Your task to perform on an android device: Open Google Chrome and open the bookmarks view Image 0: 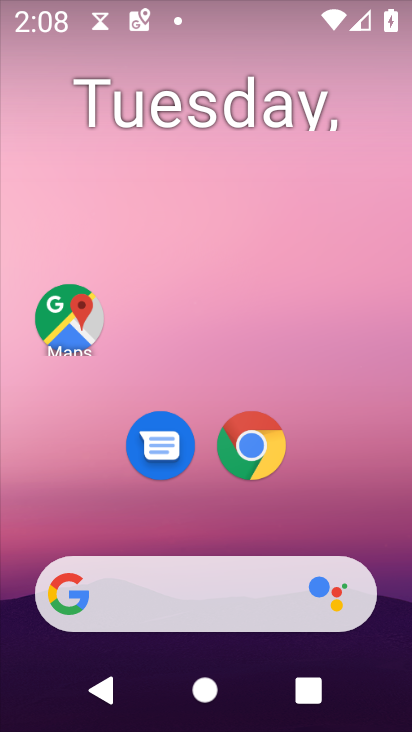
Step 0: drag from (254, 478) to (344, 15)
Your task to perform on an android device: Open Google Chrome and open the bookmarks view Image 1: 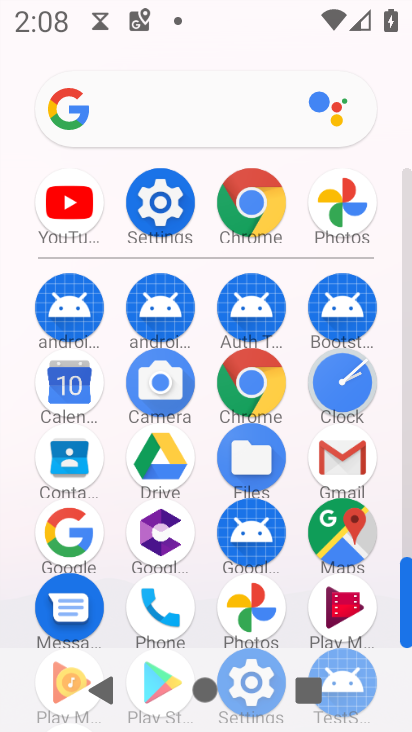
Step 1: click (249, 381)
Your task to perform on an android device: Open Google Chrome and open the bookmarks view Image 2: 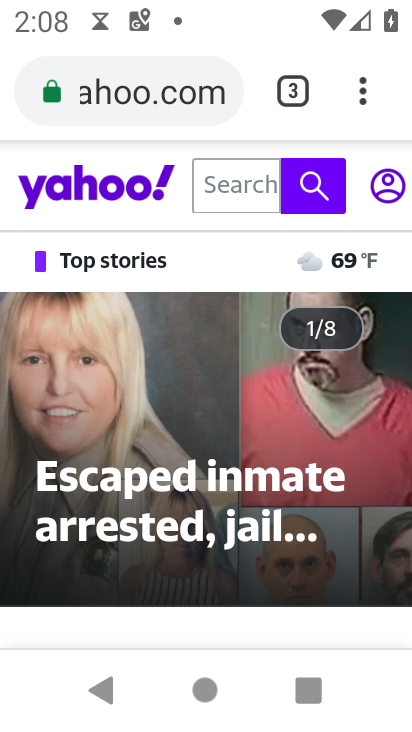
Step 2: task complete